Your task to perform on an android device: Search for asus zenbook on bestbuy, select the first entry, add it to the cart, then select checkout. Image 0: 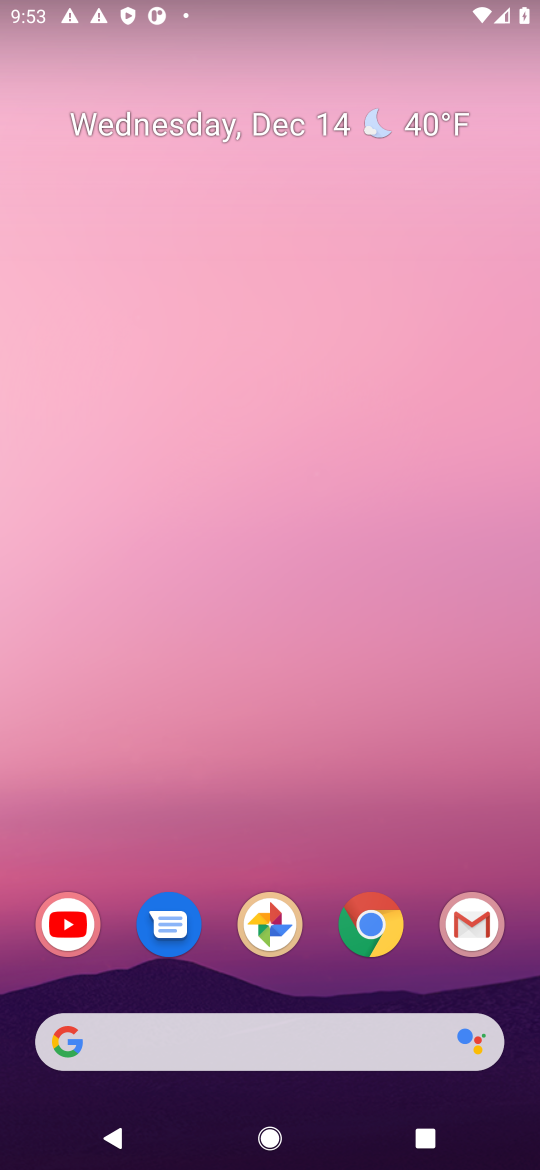
Step 0: click (371, 920)
Your task to perform on an android device: Search for asus zenbook on bestbuy, select the first entry, add it to the cart, then select checkout. Image 1: 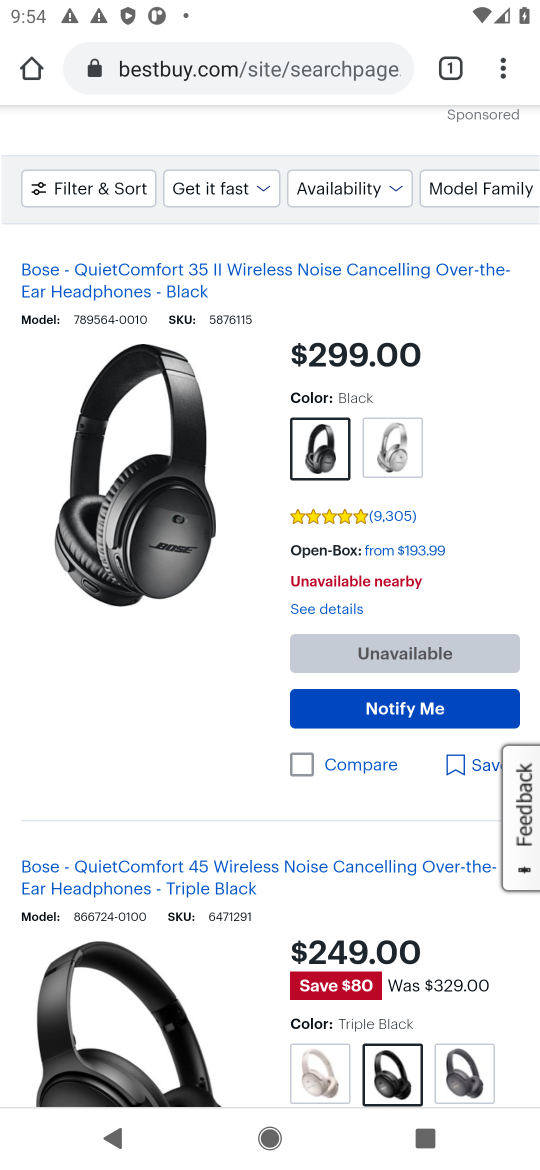
Step 1: click (239, 67)
Your task to perform on an android device: Search for asus zenbook on bestbuy, select the first entry, add it to the cart, then select checkout. Image 2: 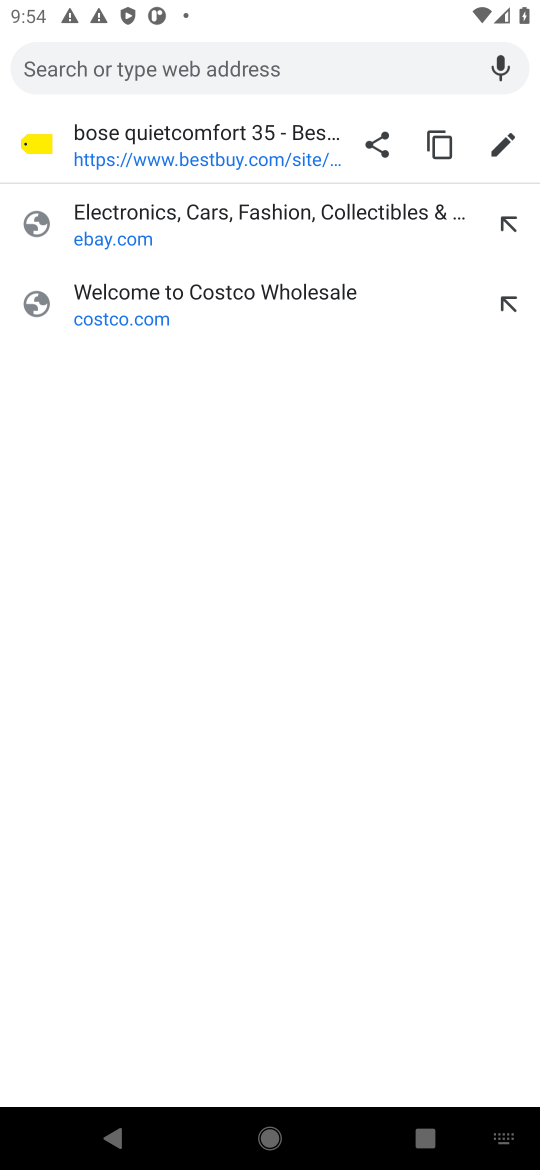
Step 2: type "BESTBUY"
Your task to perform on an android device: Search for asus zenbook on bestbuy, select the first entry, add it to the cart, then select checkout. Image 3: 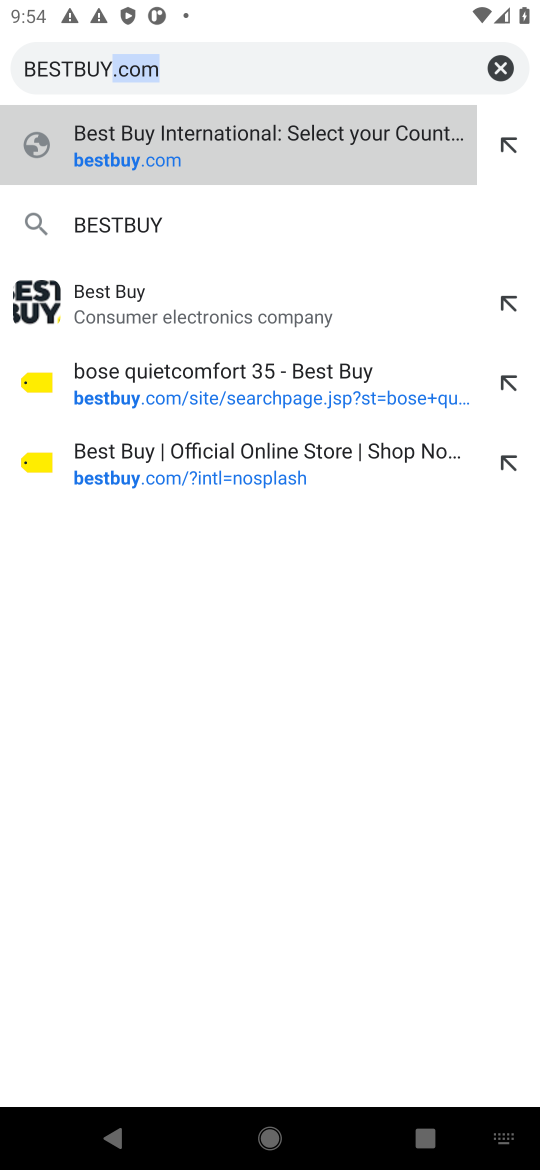
Step 3: click (278, 143)
Your task to perform on an android device: Search for asus zenbook on bestbuy, select the first entry, add it to the cart, then select checkout. Image 4: 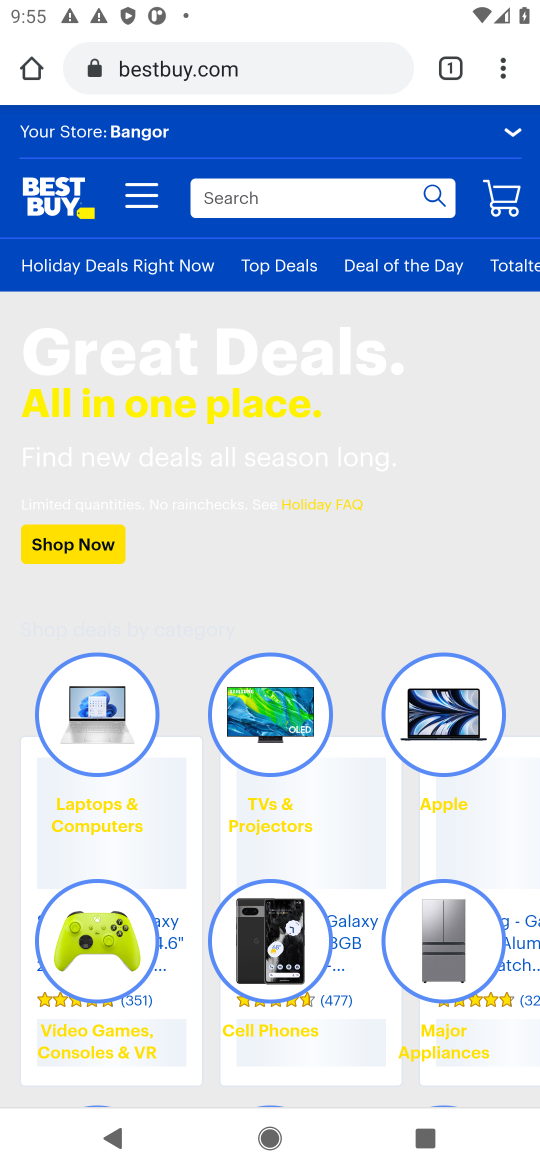
Step 4: click (365, 204)
Your task to perform on an android device: Search for asus zenbook on bestbuy, select the first entry, add it to the cart, then select checkout. Image 5: 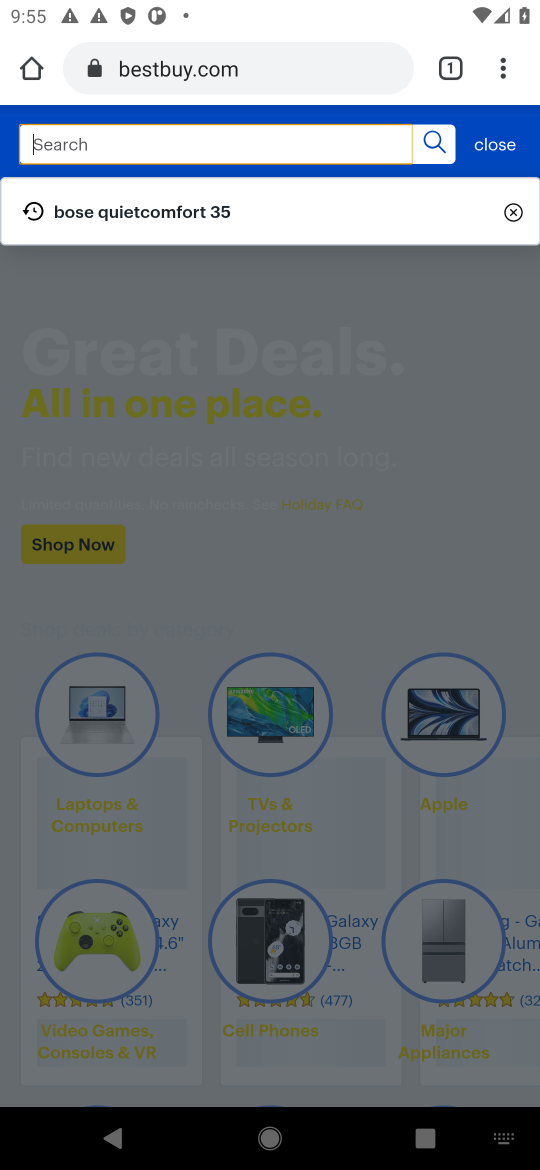
Step 5: type "asus zenbook"
Your task to perform on an android device: Search for asus zenbook on bestbuy, select the first entry, add it to the cart, then select checkout. Image 6: 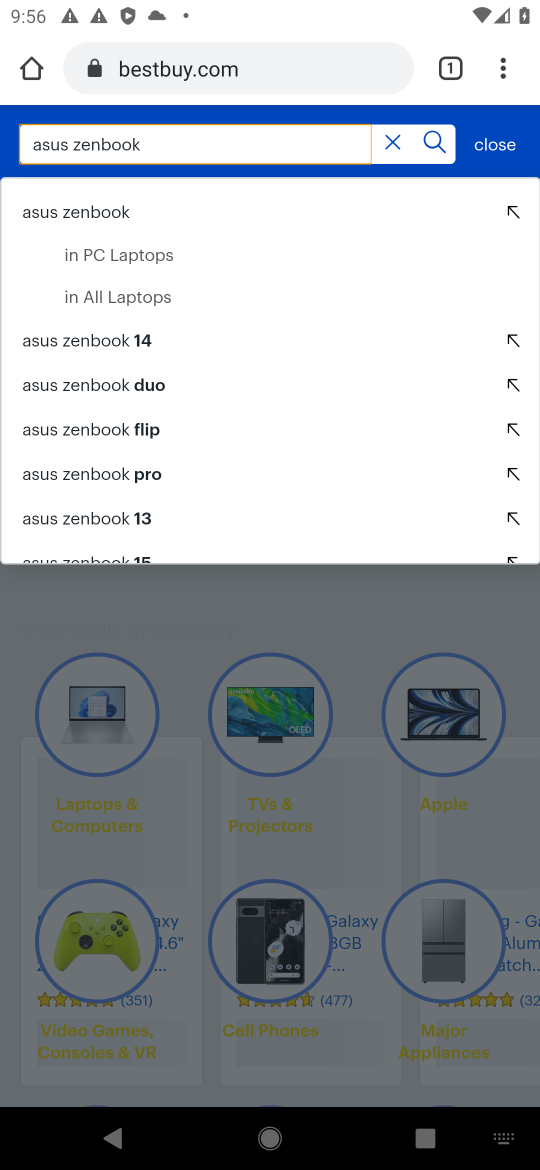
Step 6: click (174, 210)
Your task to perform on an android device: Search for asus zenbook on bestbuy, select the first entry, add it to the cart, then select checkout. Image 7: 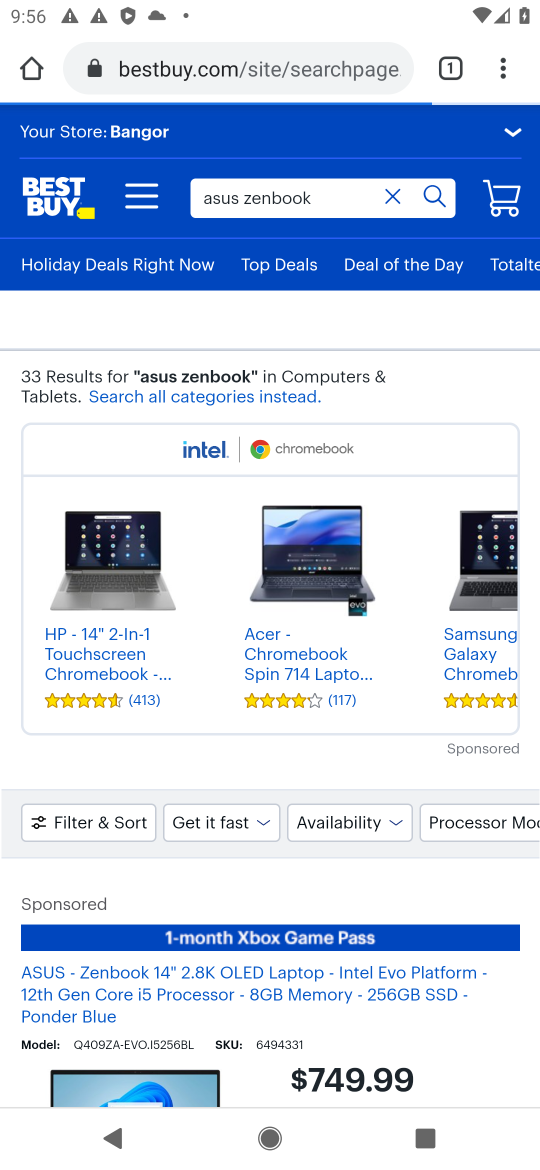
Step 7: drag from (386, 1021) to (286, 292)
Your task to perform on an android device: Search for asus zenbook on bestbuy, select the first entry, add it to the cart, then select checkout. Image 8: 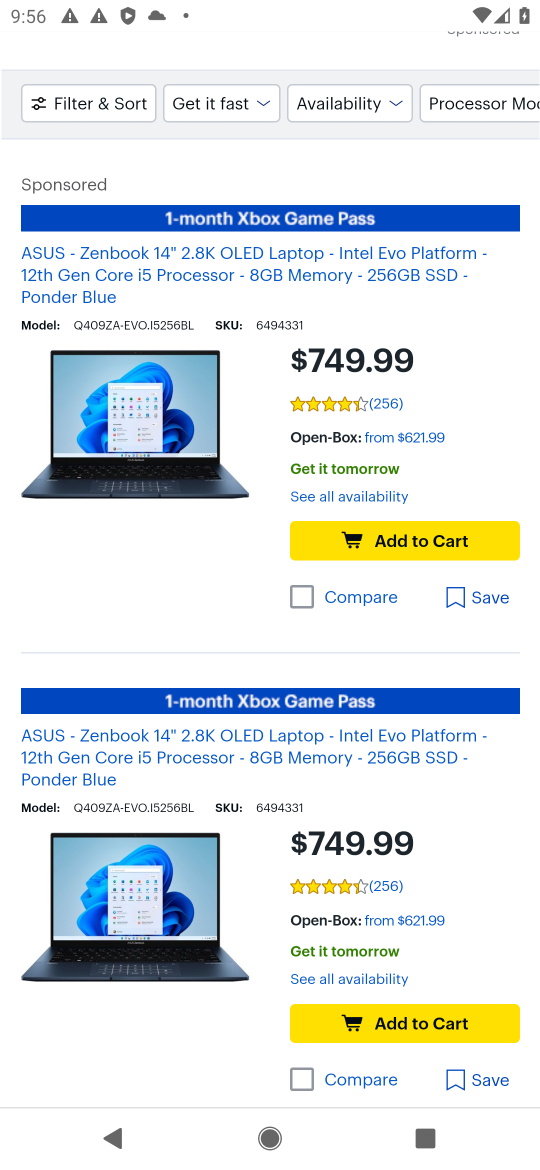
Step 8: click (412, 544)
Your task to perform on an android device: Search for asus zenbook on bestbuy, select the first entry, add it to the cart, then select checkout. Image 9: 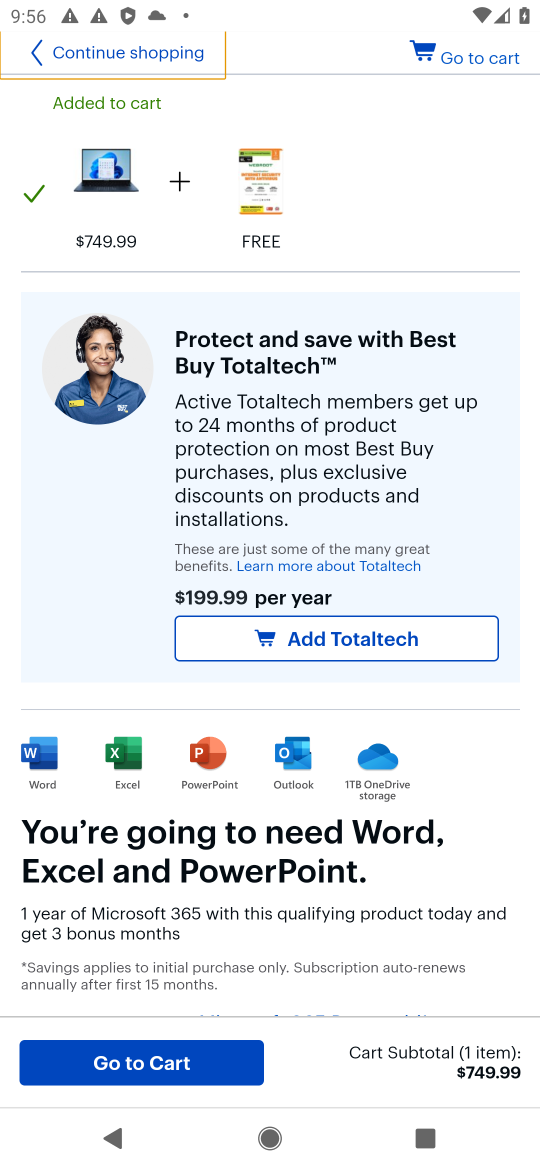
Step 9: click (150, 1061)
Your task to perform on an android device: Search for asus zenbook on bestbuy, select the first entry, add it to the cart, then select checkout. Image 10: 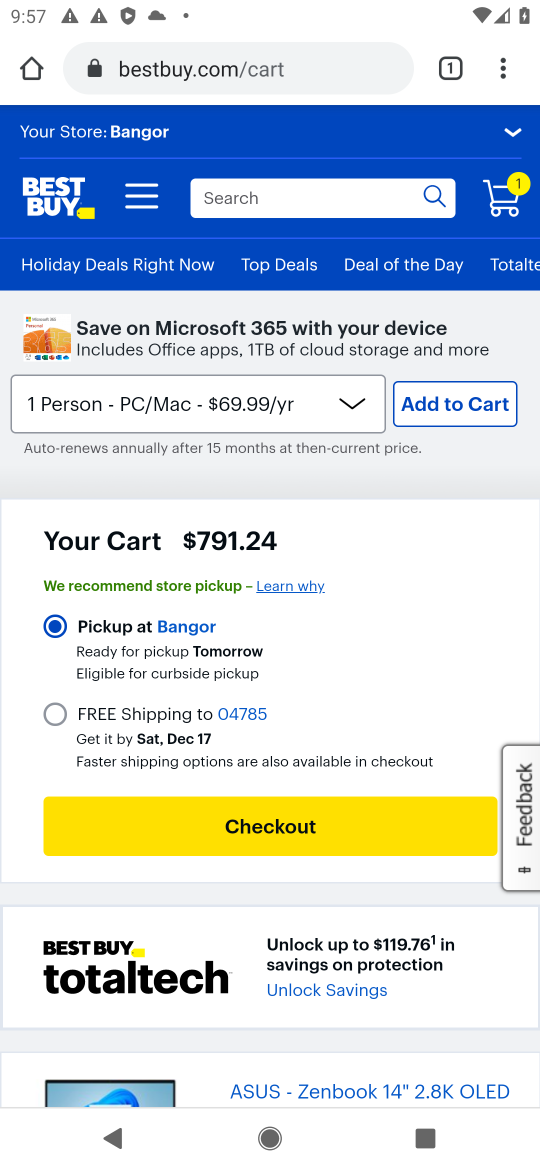
Step 10: click (276, 832)
Your task to perform on an android device: Search for asus zenbook on bestbuy, select the first entry, add it to the cart, then select checkout. Image 11: 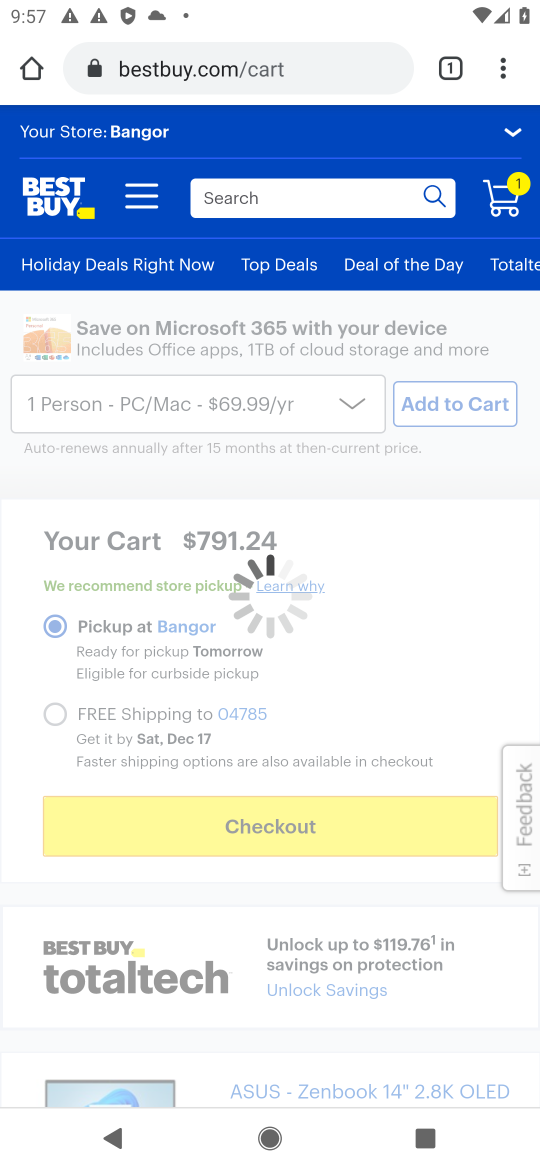
Step 11: task complete